Your task to perform on an android device: turn on javascript in the chrome app Image 0: 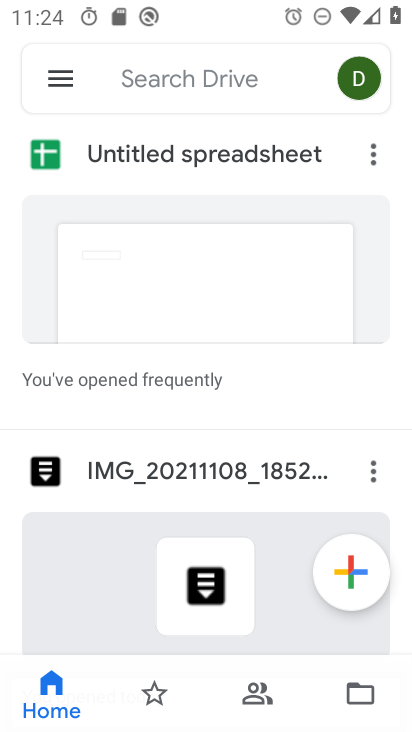
Step 0: press home button
Your task to perform on an android device: turn on javascript in the chrome app Image 1: 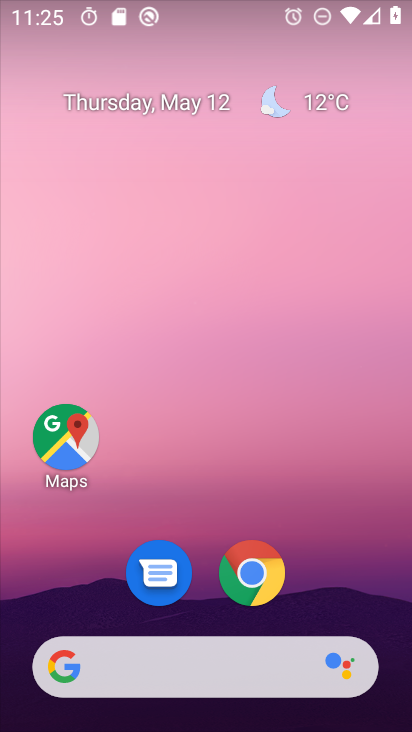
Step 1: drag from (404, 528) to (392, 403)
Your task to perform on an android device: turn on javascript in the chrome app Image 2: 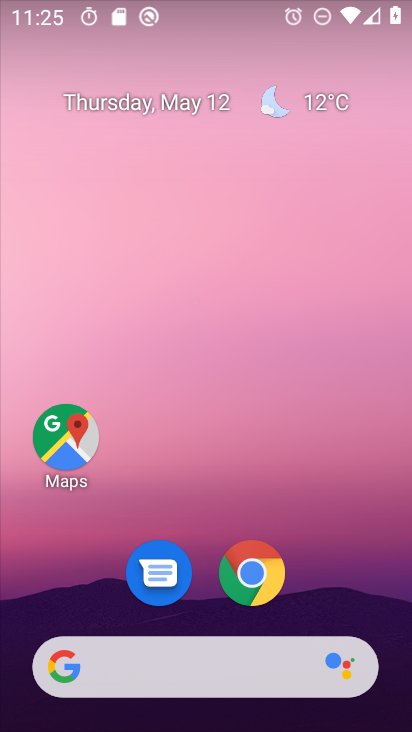
Step 2: click (256, 577)
Your task to perform on an android device: turn on javascript in the chrome app Image 3: 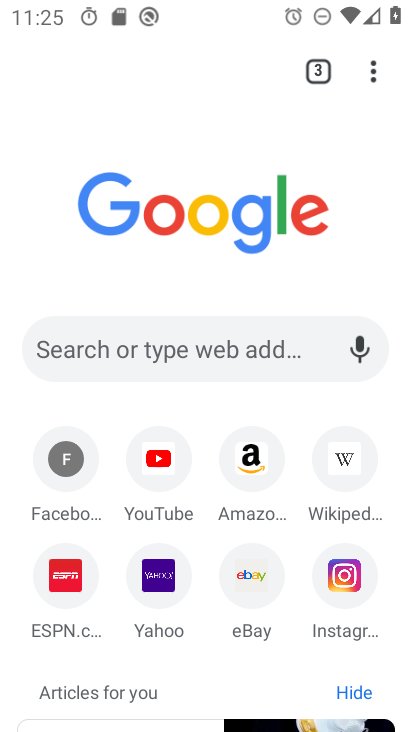
Step 3: click (373, 68)
Your task to perform on an android device: turn on javascript in the chrome app Image 4: 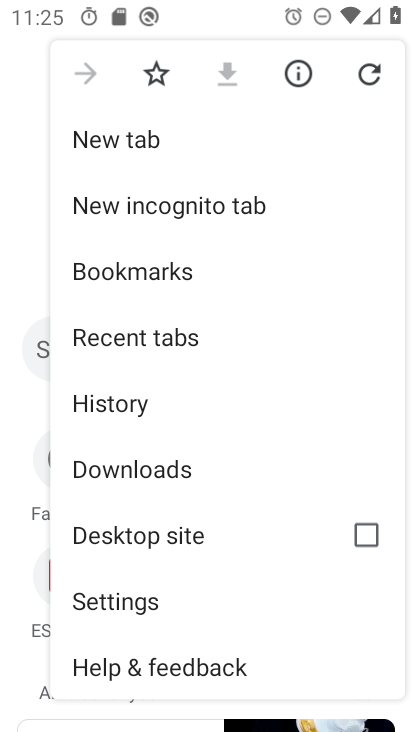
Step 4: click (85, 602)
Your task to perform on an android device: turn on javascript in the chrome app Image 5: 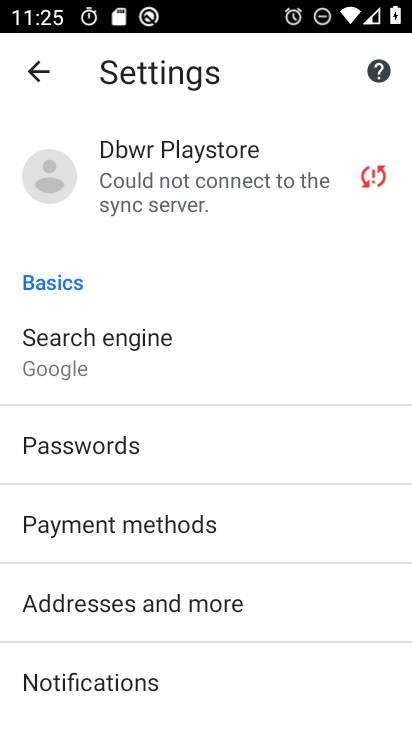
Step 5: drag from (286, 689) to (304, 460)
Your task to perform on an android device: turn on javascript in the chrome app Image 6: 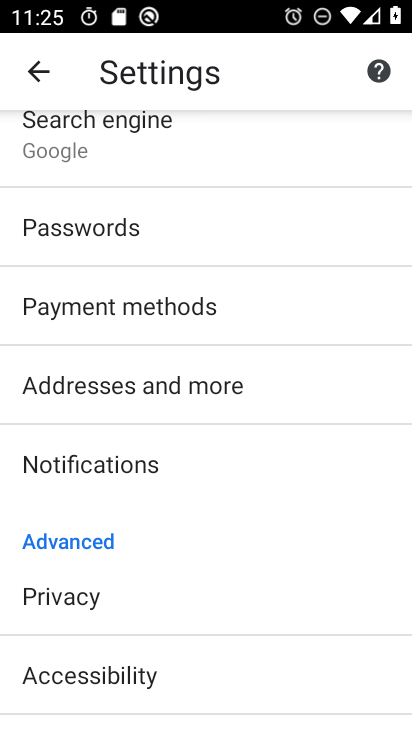
Step 6: drag from (288, 668) to (316, 428)
Your task to perform on an android device: turn on javascript in the chrome app Image 7: 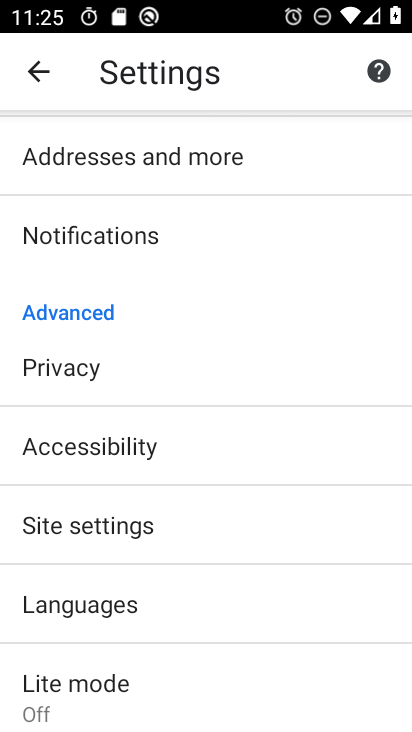
Step 7: click (134, 526)
Your task to perform on an android device: turn on javascript in the chrome app Image 8: 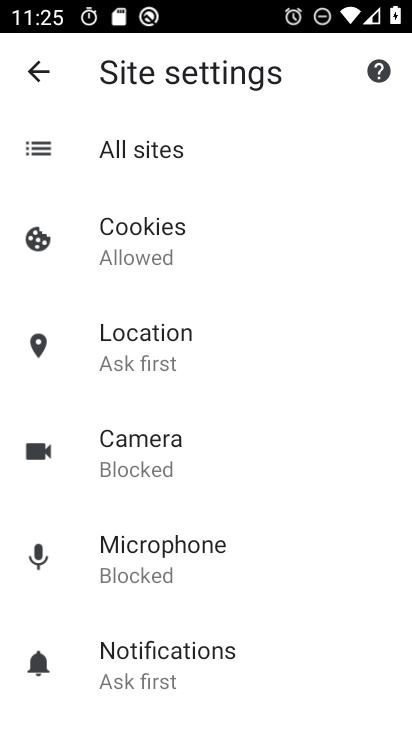
Step 8: drag from (308, 692) to (307, 456)
Your task to perform on an android device: turn on javascript in the chrome app Image 9: 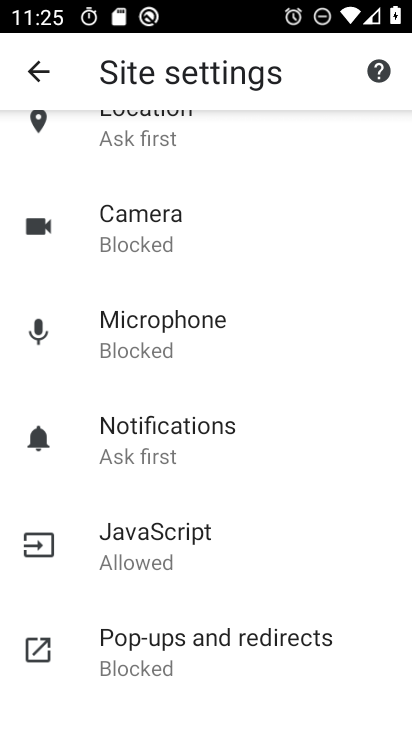
Step 9: click (141, 546)
Your task to perform on an android device: turn on javascript in the chrome app Image 10: 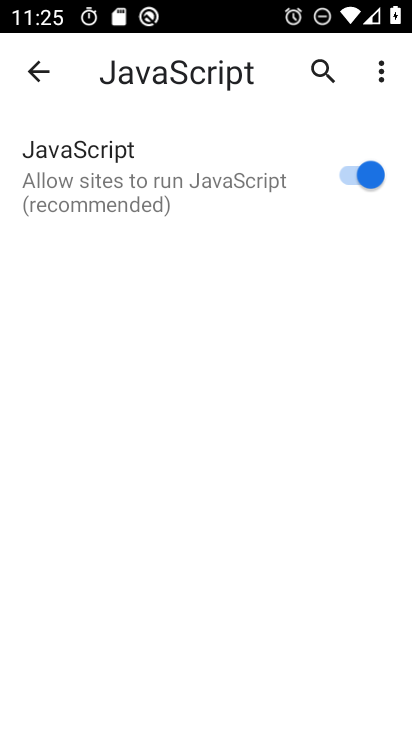
Step 10: task complete